Your task to perform on an android device: refresh tabs in the chrome app Image 0: 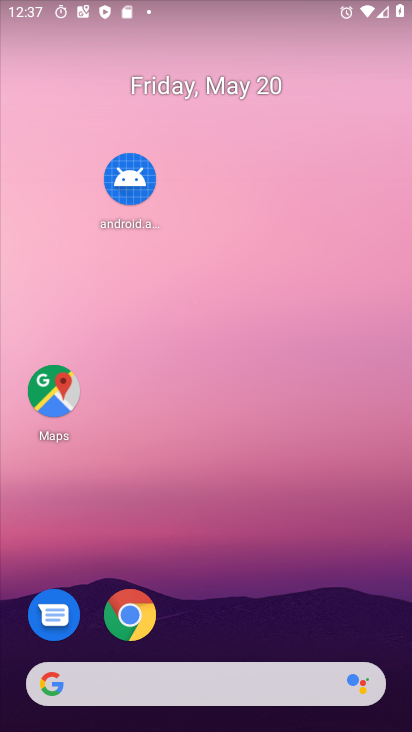
Step 0: click (145, 625)
Your task to perform on an android device: refresh tabs in the chrome app Image 1: 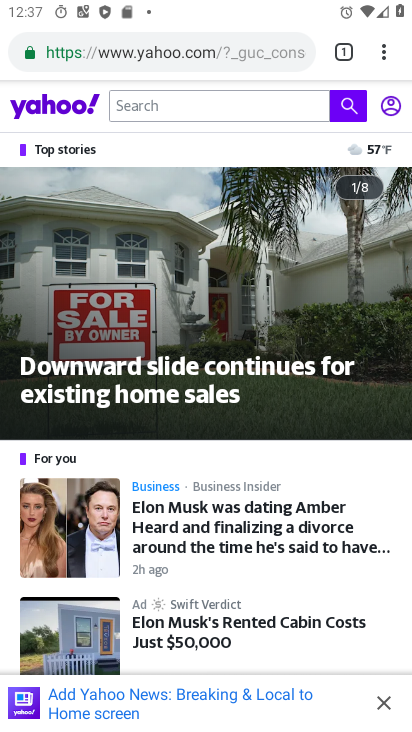
Step 1: click (384, 43)
Your task to perform on an android device: refresh tabs in the chrome app Image 2: 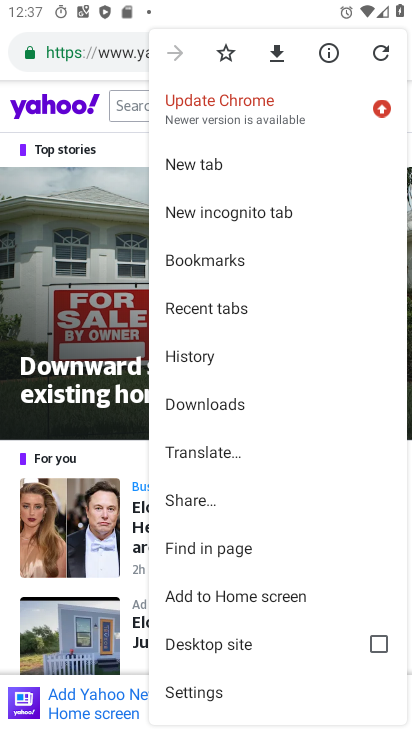
Step 2: click (381, 52)
Your task to perform on an android device: refresh tabs in the chrome app Image 3: 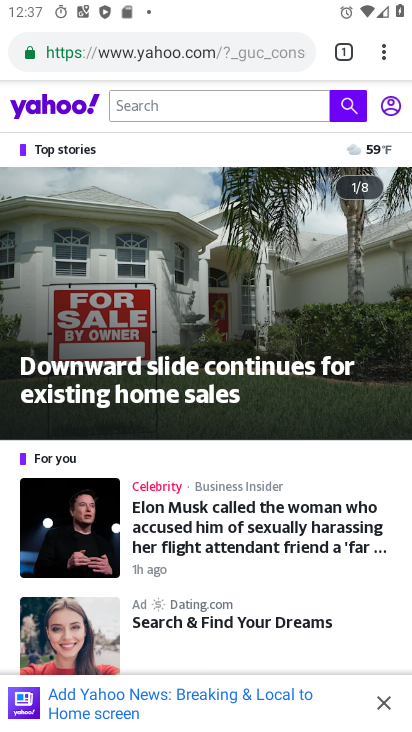
Step 3: task complete